Your task to perform on an android device: Go to ESPN.com Image 0: 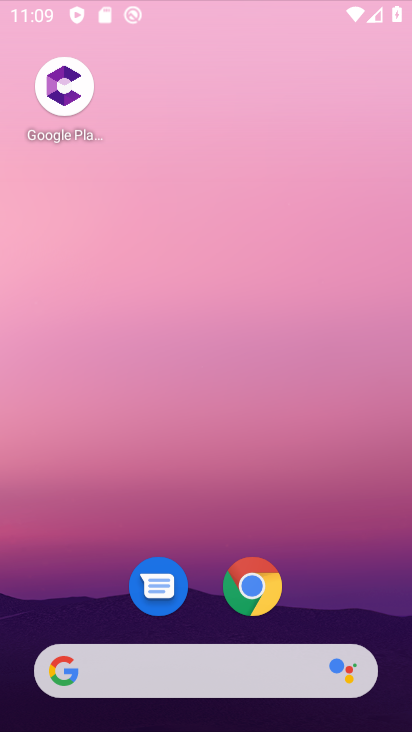
Step 0: click (330, 124)
Your task to perform on an android device: Go to ESPN.com Image 1: 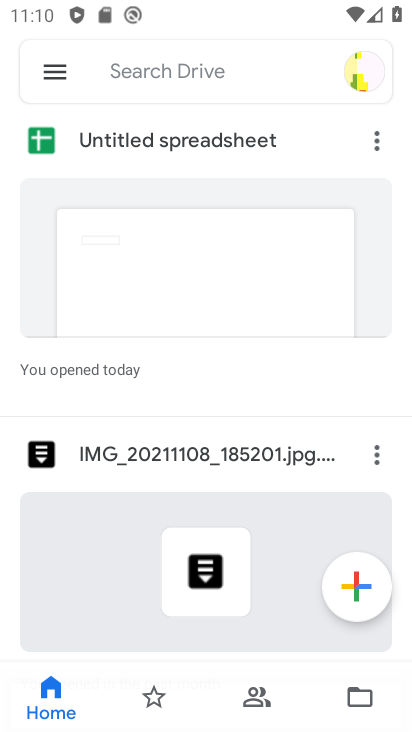
Step 1: press home button
Your task to perform on an android device: Go to ESPN.com Image 2: 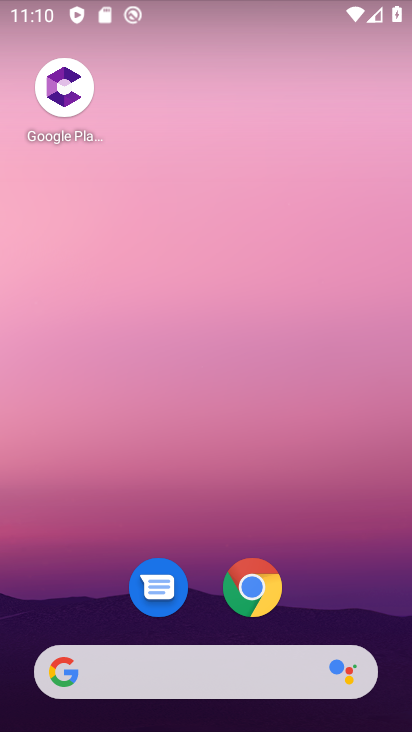
Step 2: click (240, 601)
Your task to perform on an android device: Go to ESPN.com Image 3: 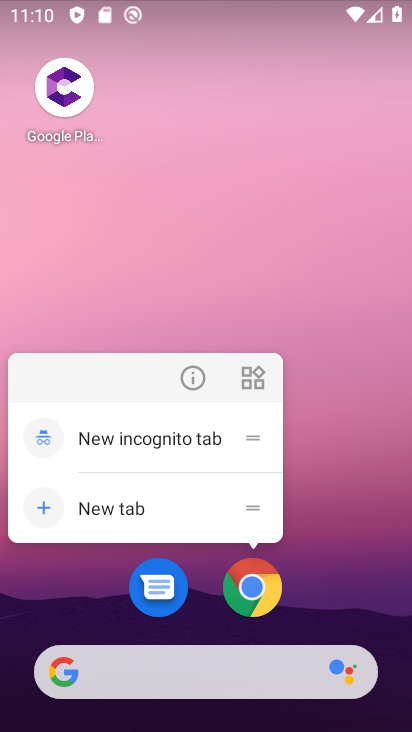
Step 3: click (264, 591)
Your task to perform on an android device: Go to ESPN.com Image 4: 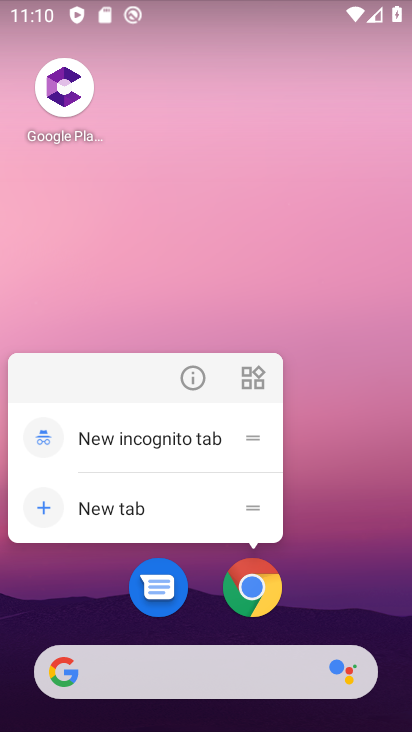
Step 4: click (251, 584)
Your task to perform on an android device: Go to ESPN.com Image 5: 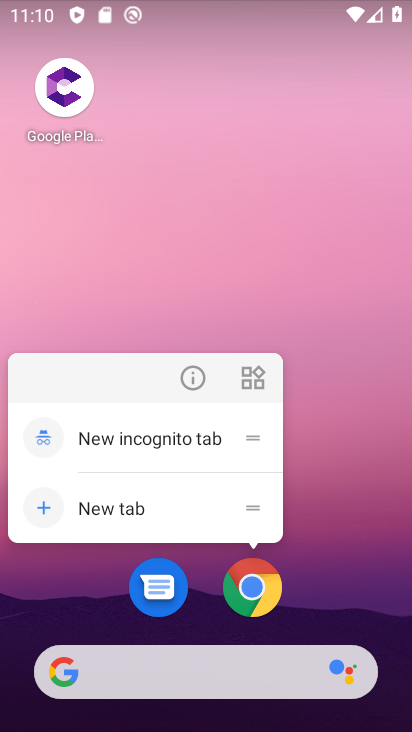
Step 5: click (261, 583)
Your task to perform on an android device: Go to ESPN.com Image 6: 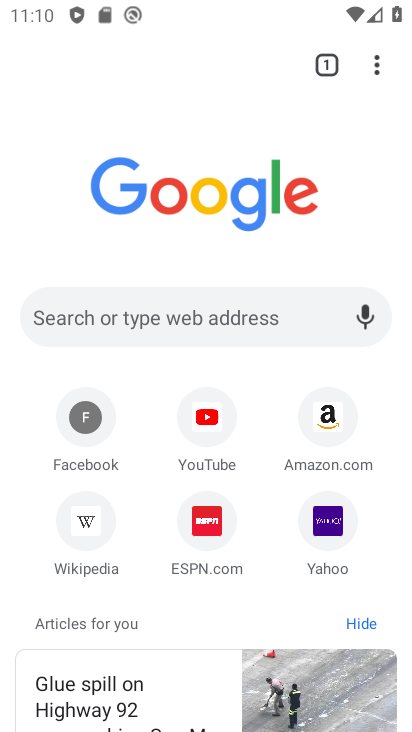
Step 6: click (74, 328)
Your task to perform on an android device: Go to ESPN.com Image 7: 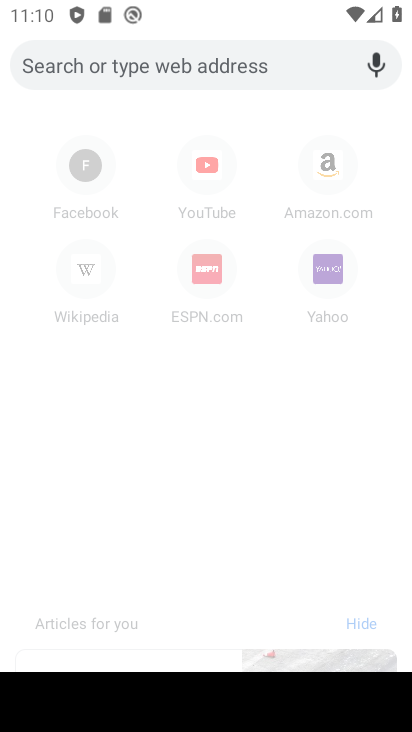
Step 7: type "ESPN.com"
Your task to perform on an android device: Go to ESPN.com Image 8: 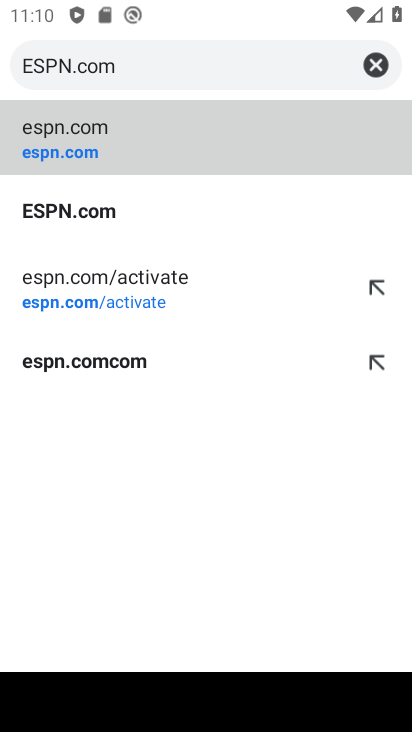
Step 8: click (39, 142)
Your task to perform on an android device: Go to ESPN.com Image 9: 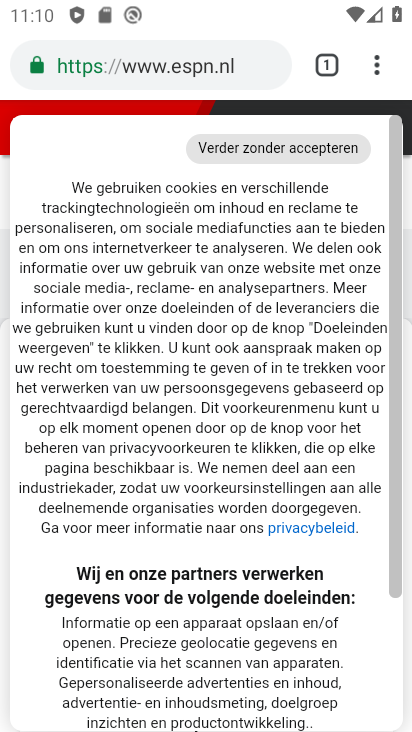
Step 9: task complete